Your task to perform on an android device: change the clock display to show seconds Image 0: 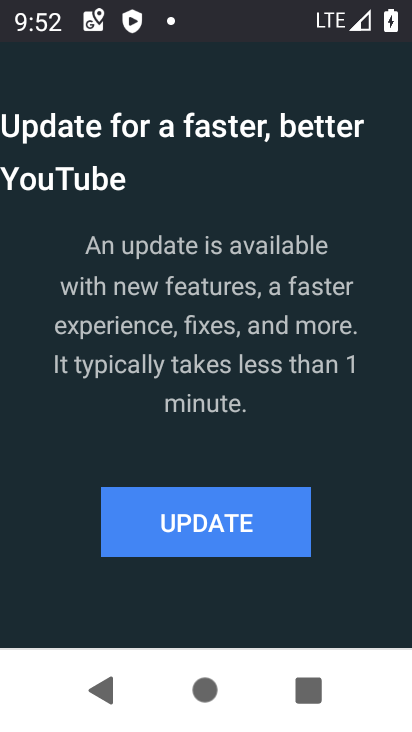
Step 0: press home button
Your task to perform on an android device: change the clock display to show seconds Image 1: 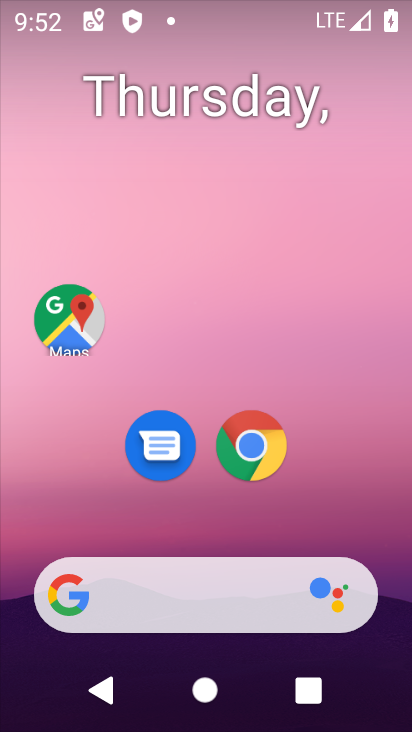
Step 1: drag from (94, 561) to (149, 255)
Your task to perform on an android device: change the clock display to show seconds Image 2: 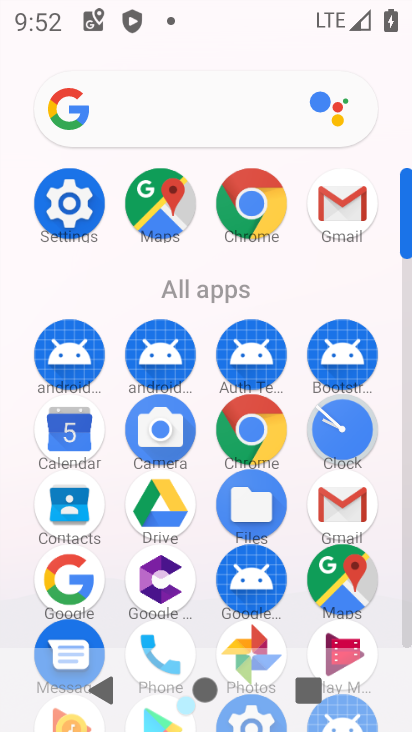
Step 2: click (352, 434)
Your task to perform on an android device: change the clock display to show seconds Image 3: 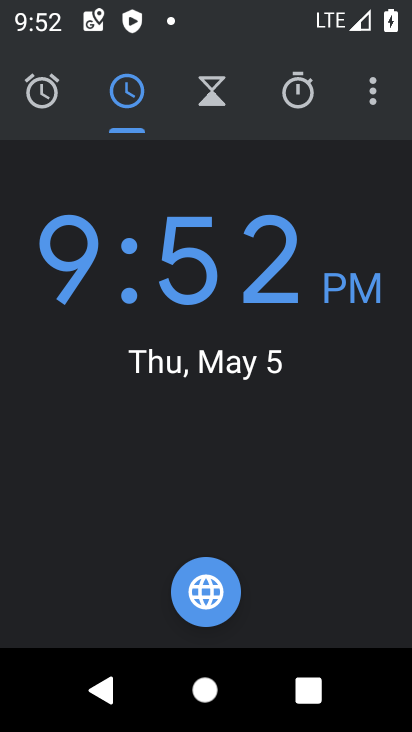
Step 3: click (376, 93)
Your task to perform on an android device: change the clock display to show seconds Image 4: 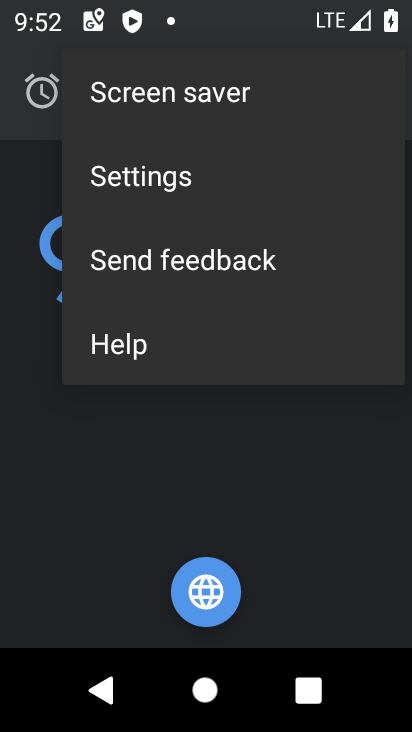
Step 4: click (140, 196)
Your task to perform on an android device: change the clock display to show seconds Image 5: 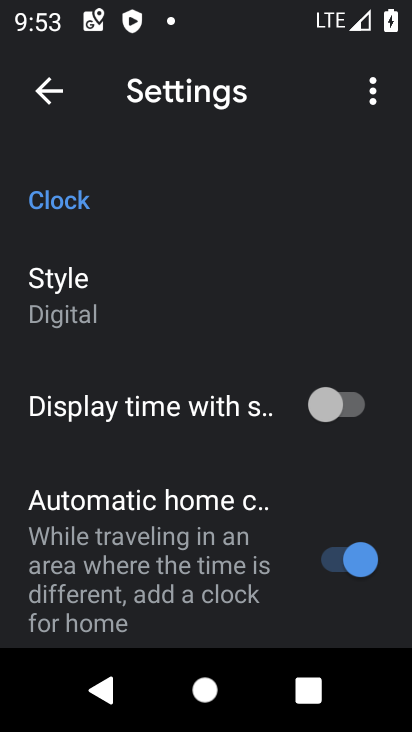
Step 5: click (359, 403)
Your task to perform on an android device: change the clock display to show seconds Image 6: 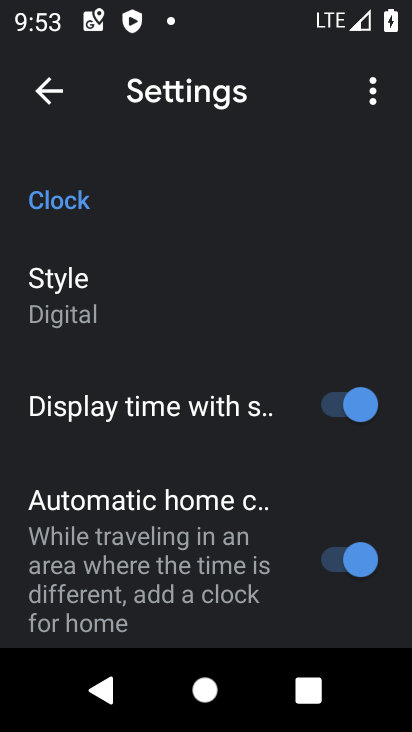
Step 6: task complete